Your task to perform on an android device: Is it going to rain today? Image 0: 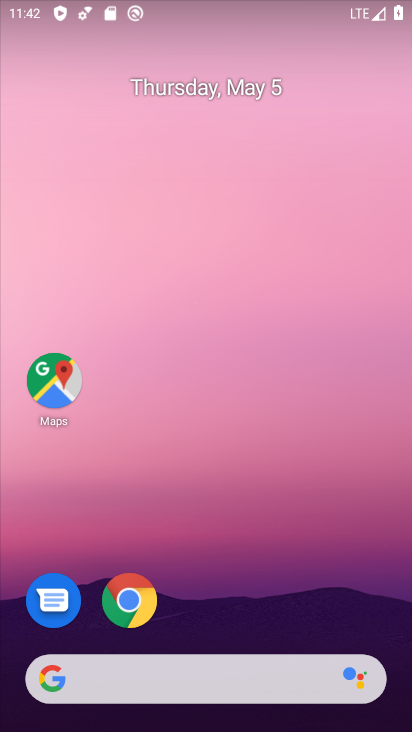
Step 0: click (174, 688)
Your task to perform on an android device: Is it going to rain today? Image 1: 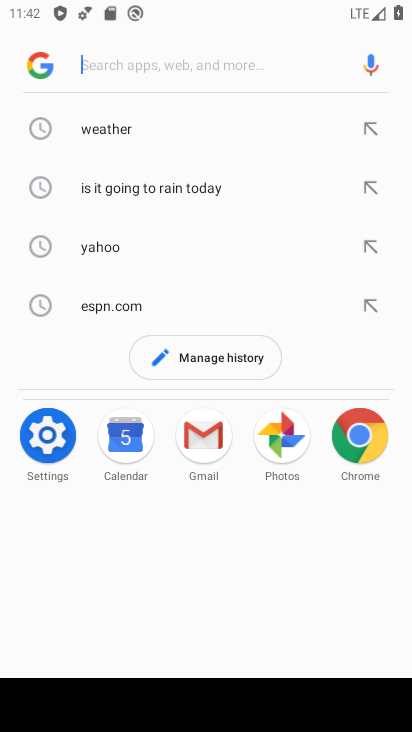
Step 1: click (148, 185)
Your task to perform on an android device: Is it going to rain today? Image 2: 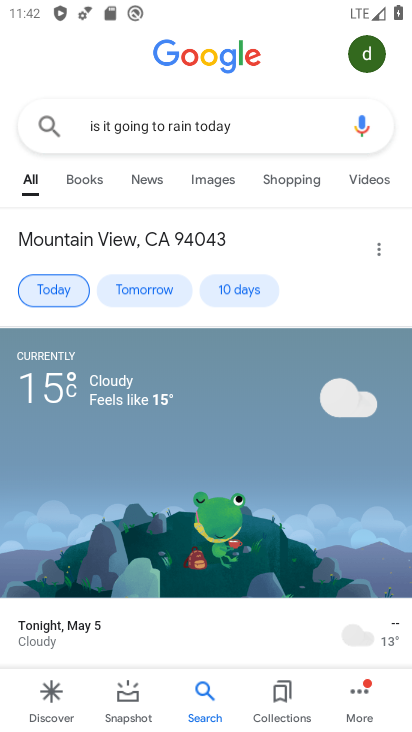
Step 2: task complete